Your task to perform on an android device: open app "Google Home" (install if not already installed) Image 0: 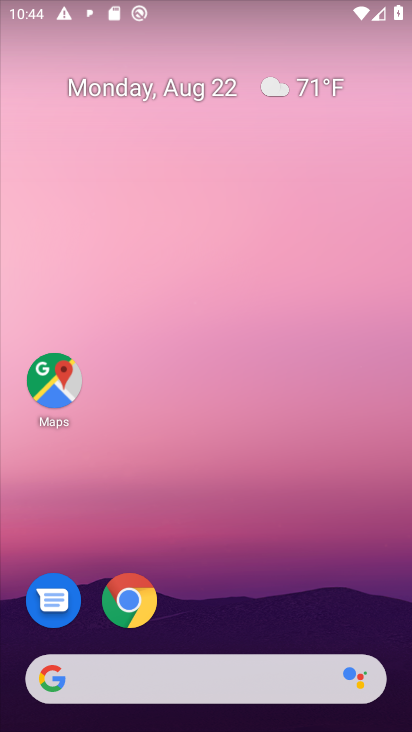
Step 0: drag from (207, 562) to (243, 141)
Your task to perform on an android device: open app "Google Home" (install if not already installed) Image 1: 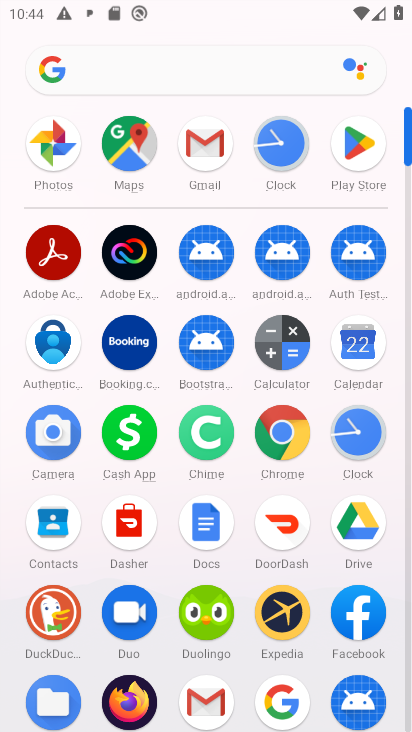
Step 1: click (351, 127)
Your task to perform on an android device: open app "Google Home" (install if not already installed) Image 2: 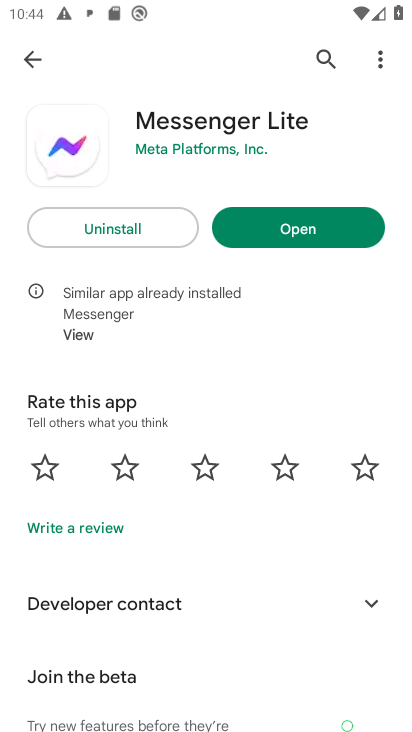
Step 2: click (368, 64)
Your task to perform on an android device: open app "Google Home" (install if not already installed) Image 3: 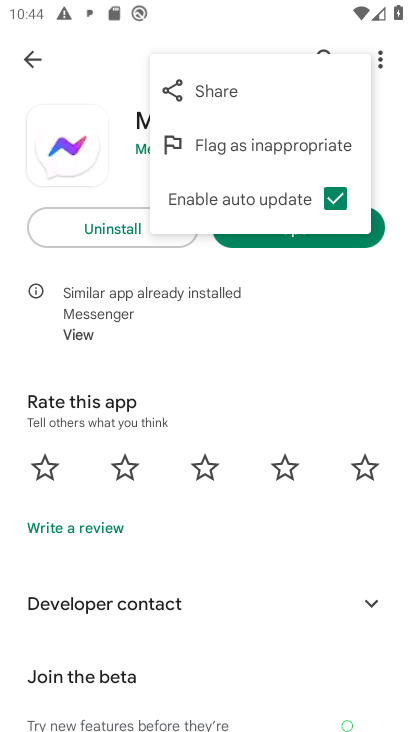
Step 3: click (94, 44)
Your task to perform on an android device: open app "Google Home" (install if not already installed) Image 4: 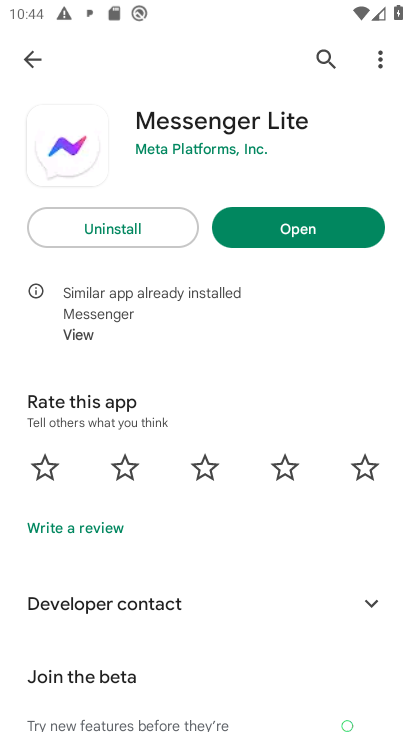
Step 4: click (316, 64)
Your task to perform on an android device: open app "Google Home" (install if not already installed) Image 5: 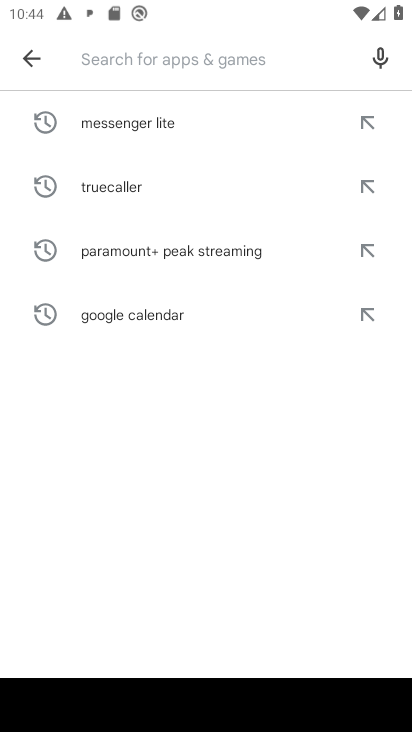
Step 5: type "Google Home"
Your task to perform on an android device: open app "Google Home" (install if not already installed) Image 6: 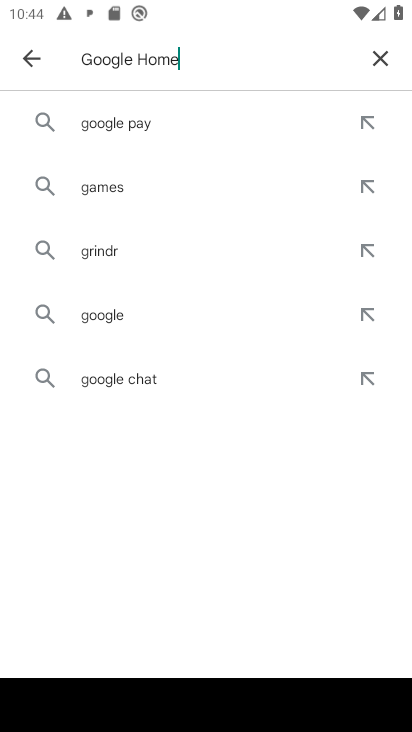
Step 6: type ""
Your task to perform on an android device: open app "Google Home" (install if not already installed) Image 7: 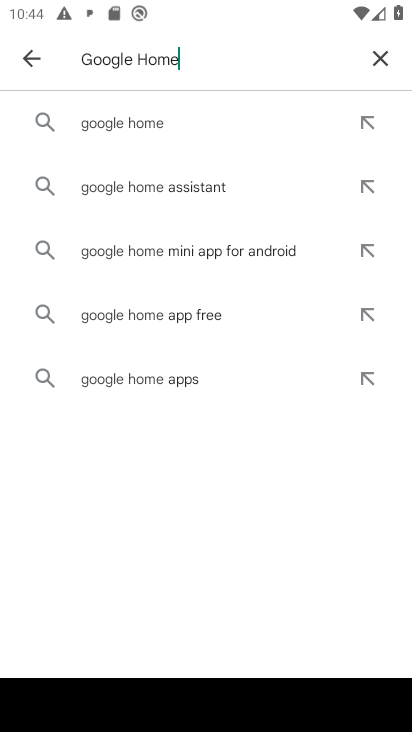
Step 7: click (157, 120)
Your task to perform on an android device: open app "Google Home" (install if not already installed) Image 8: 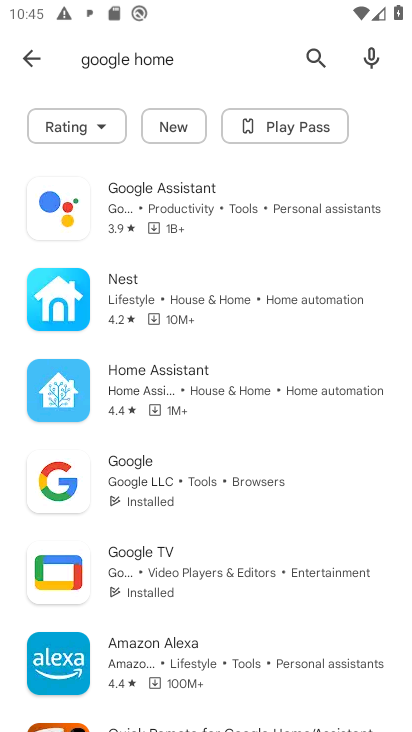
Step 8: task complete